Your task to perform on an android device: turn on priority inbox in the gmail app Image 0: 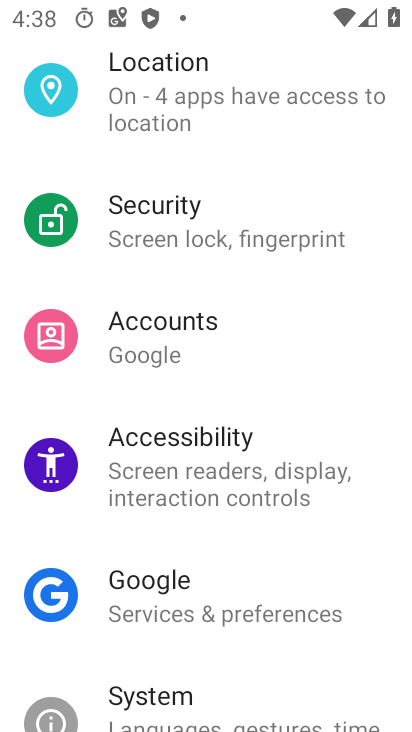
Step 0: press home button
Your task to perform on an android device: turn on priority inbox in the gmail app Image 1: 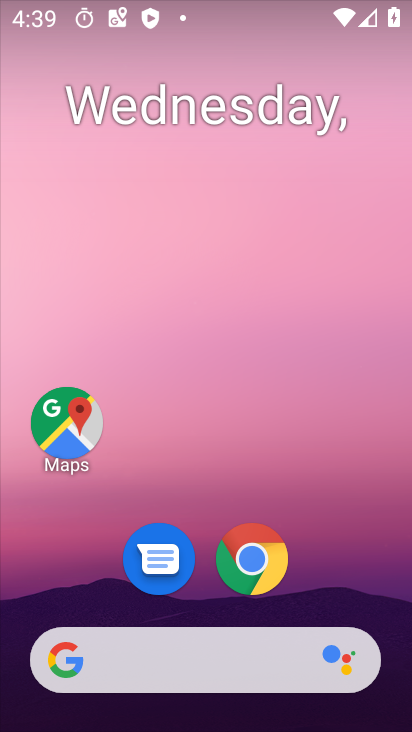
Step 1: drag from (220, 69) to (217, 12)
Your task to perform on an android device: turn on priority inbox in the gmail app Image 2: 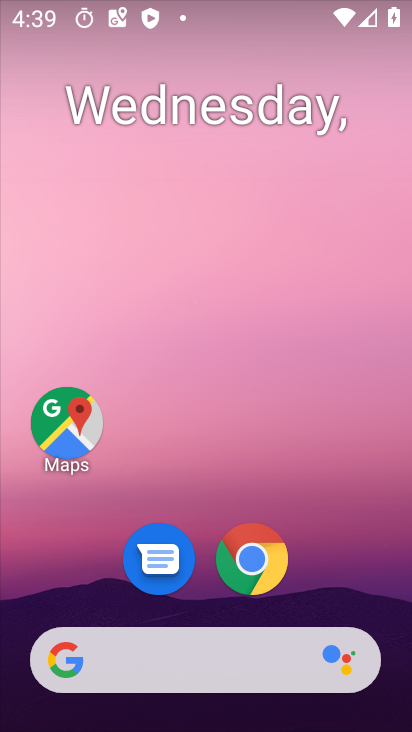
Step 2: drag from (306, 295) to (266, 58)
Your task to perform on an android device: turn on priority inbox in the gmail app Image 3: 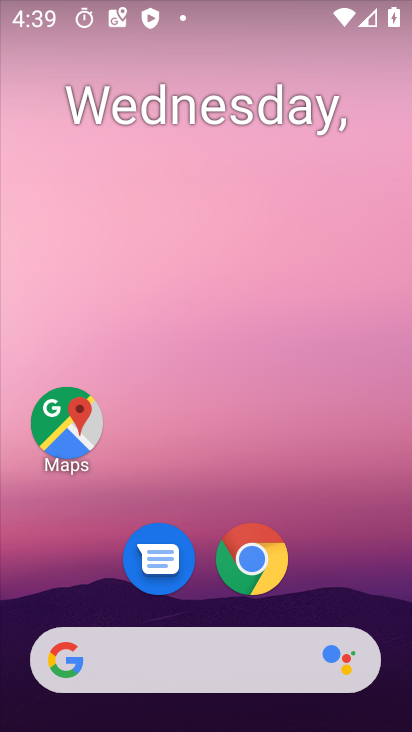
Step 3: drag from (332, 565) to (235, 39)
Your task to perform on an android device: turn on priority inbox in the gmail app Image 4: 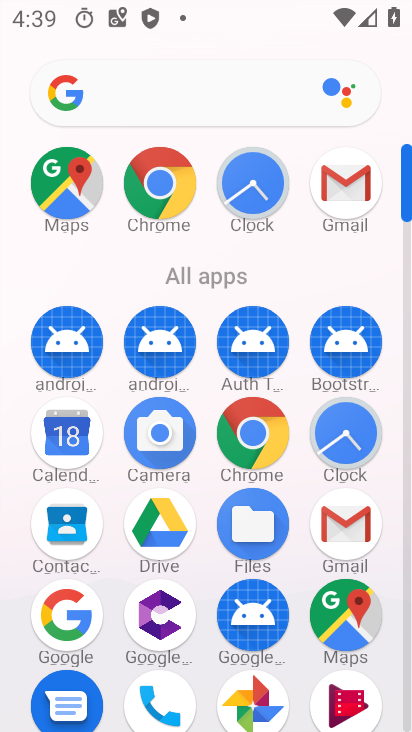
Step 4: click (353, 174)
Your task to perform on an android device: turn on priority inbox in the gmail app Image 5: 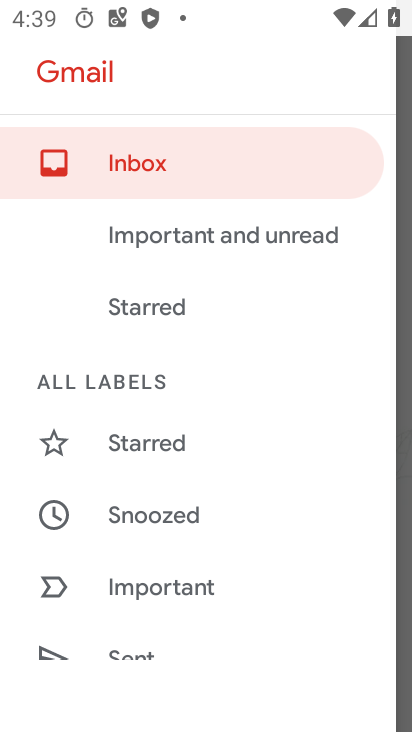
Step 5: drag from (216, 540) to (213, 51)
Your task to perform on an android device: turn on priority inbox in the gmail app Image 6: 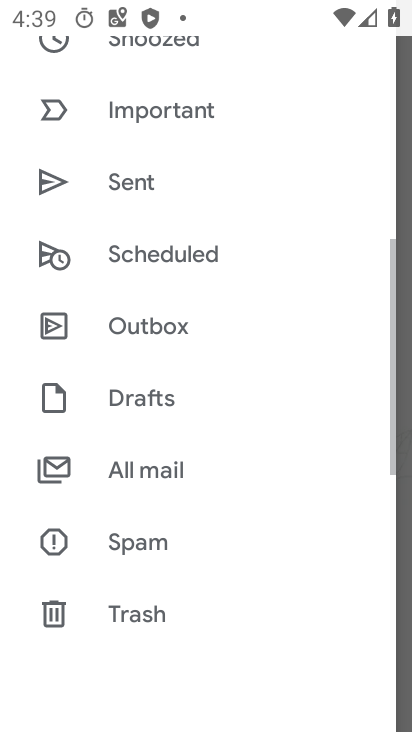
Step 6: drag from (182, 535) to (208, 125)
Your task to perform on an android device: turn on priority inbox in the gmail app Image 7: 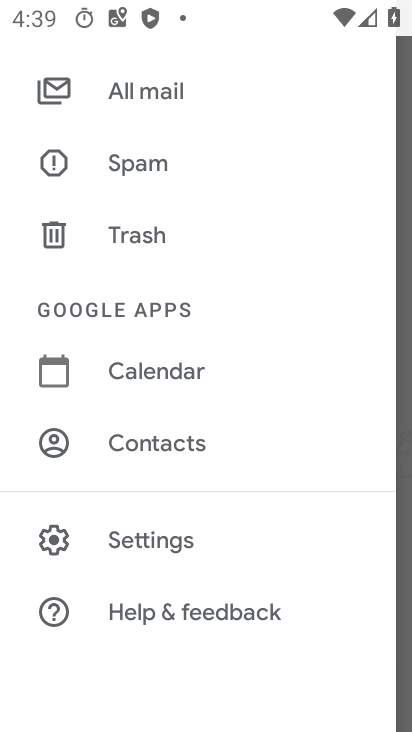
Step 7: click (174, 552)
Your task to perform on an android device: turn on priority inbox in the gmail app Image 8: 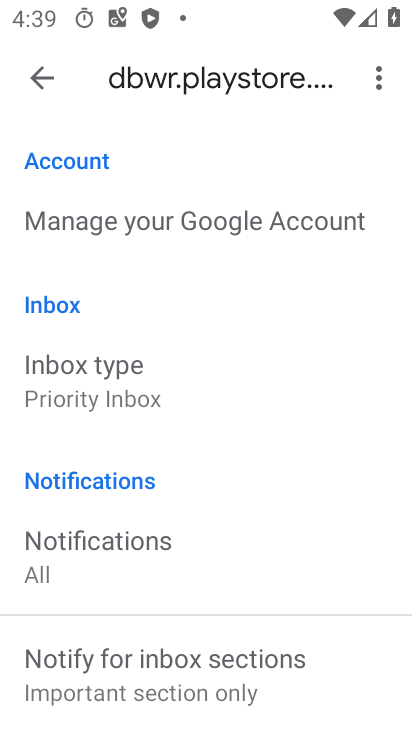
Step 8: click (131, 388)
Your task to perform on an android device: turn on priority inbox in the gmail app Image 9: 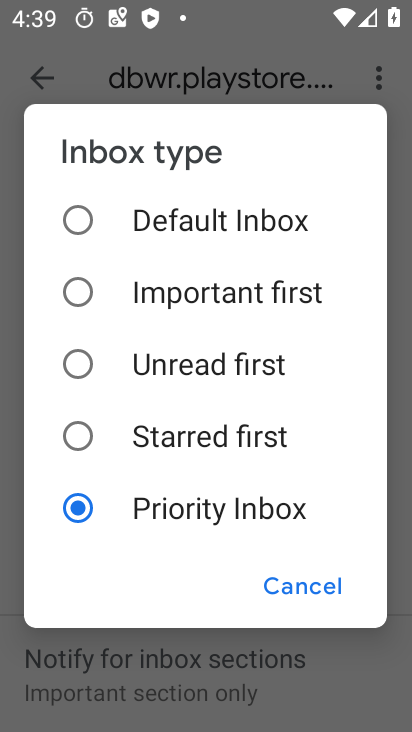
Step 9: task complete